Your task to perform on an android device: Go to location settings Image 0: 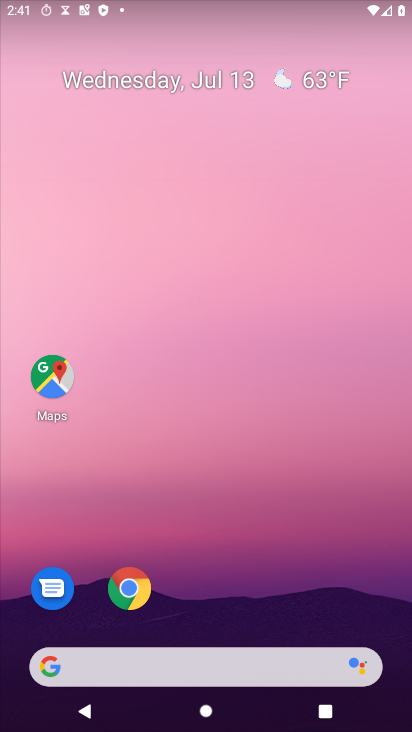
Step 0: drag from (201, 660) to (127, 134)
Your task to perform on an android device: Go to location settings Image 1: 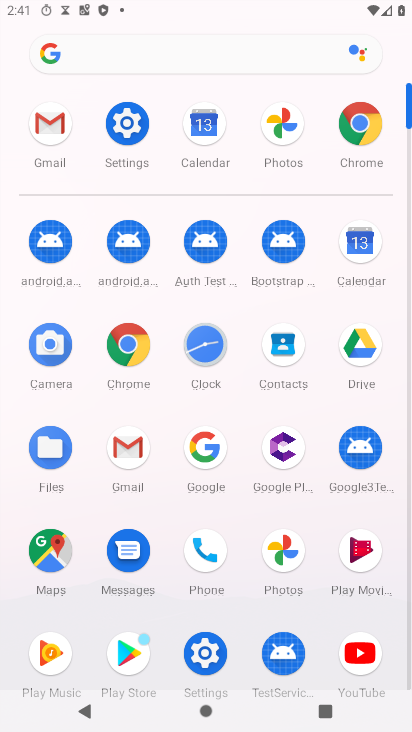
Step 1: click (119, 129)
Your task to perform on an android device: Go to location settings Image 2: 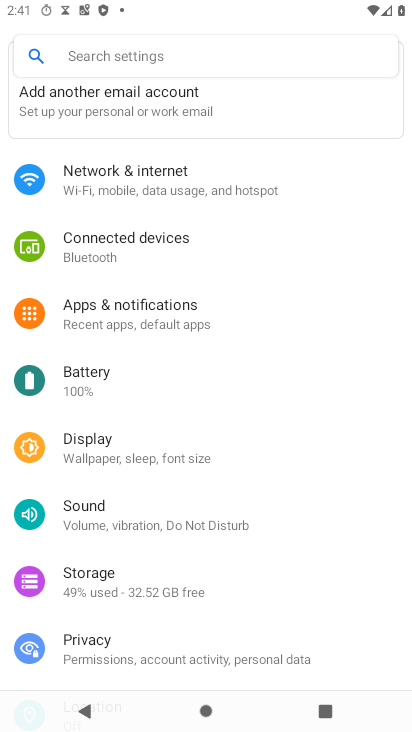
Step 2: drag from (139, 561) to (116, 246)
Your task to perform on an android device: Go to location settings Image 3: 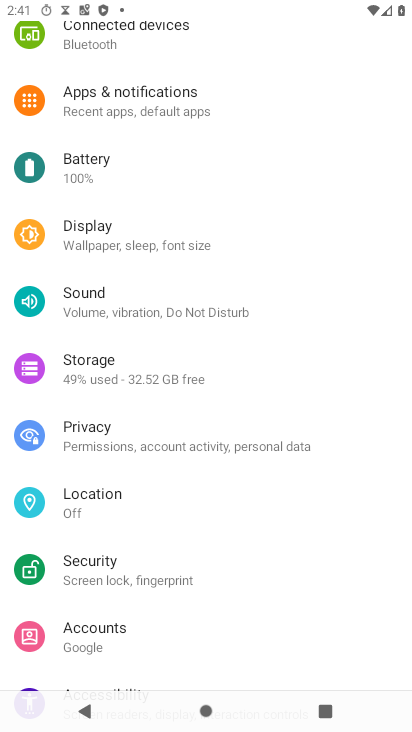
Step 3: click (126, 479)
Your task to perform on an android device: Go to location settings Image 4: 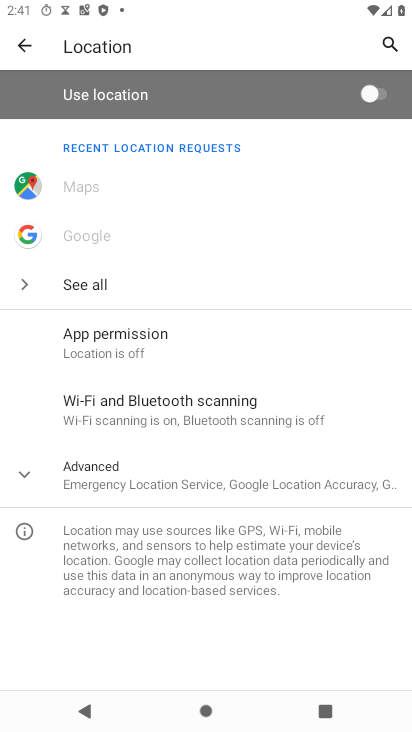
Step 4: task complete